Your task to perform on an android device: open a new tab in the chrome app Image 0: 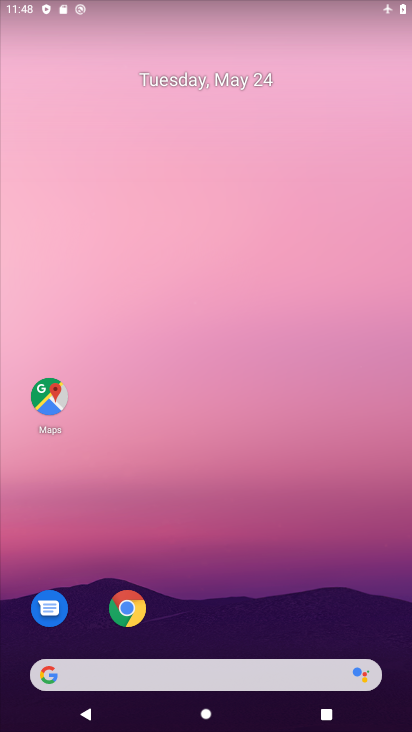
Step 0: click (117, 602)
Your task to perform on an android device: open a new tab in the chrome app Image 1: 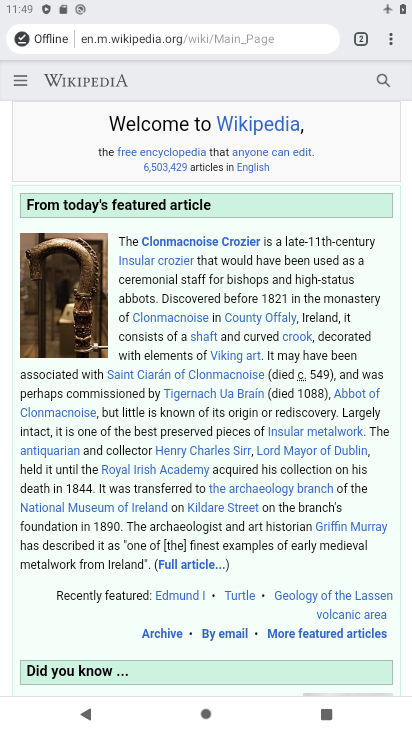
Step 1: click (358, 46)
Your task to perform on an android device: open a new tab in the chrome app Image 2: 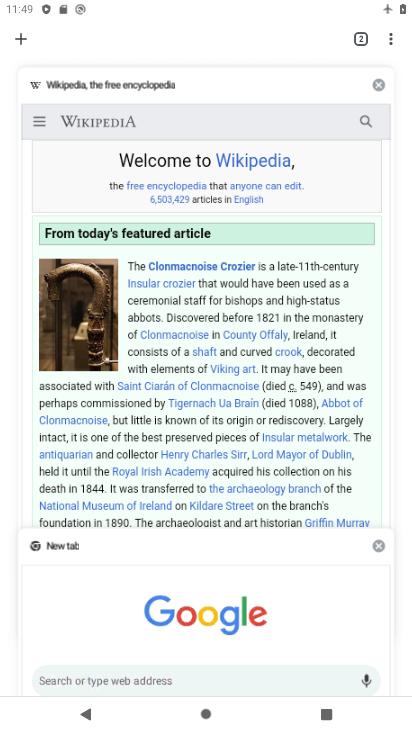
Step 2: click (18, 42)
Your task to perform on an android device: open a new tab in the chrome app Image 3: 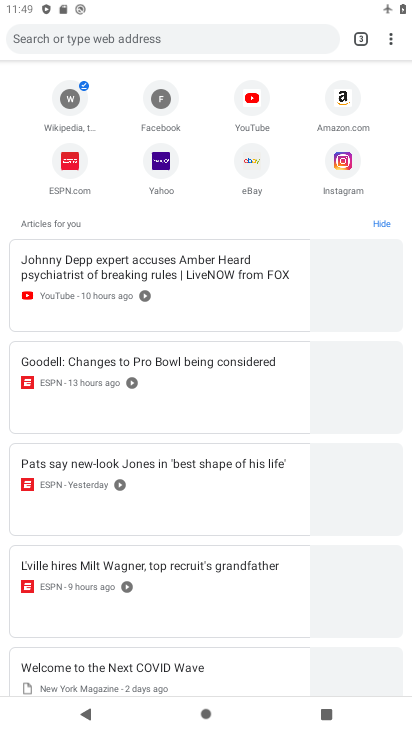
Step 3: task complete